Your task to perform on an android device: turn off wifi Image 0: 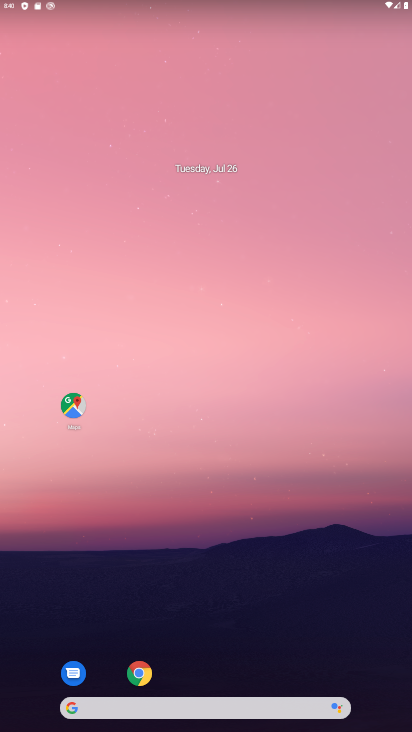
Step 0: drag from (275, 671) to (288, 53)
Your task to perform on an android device: turn off wifi Image 1: 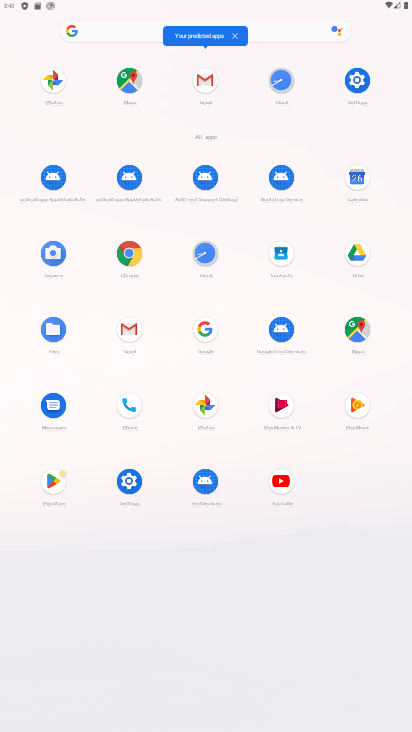
Step 1: click (359, 79)
Your task to perform on an android device: turn off wifi Image 2: 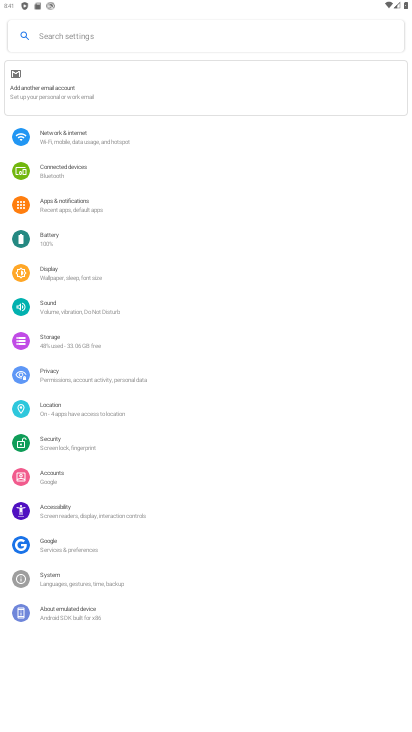
Step 2: click (156, 134)
Your task to perform on an android device: turn off wifi Image 3: 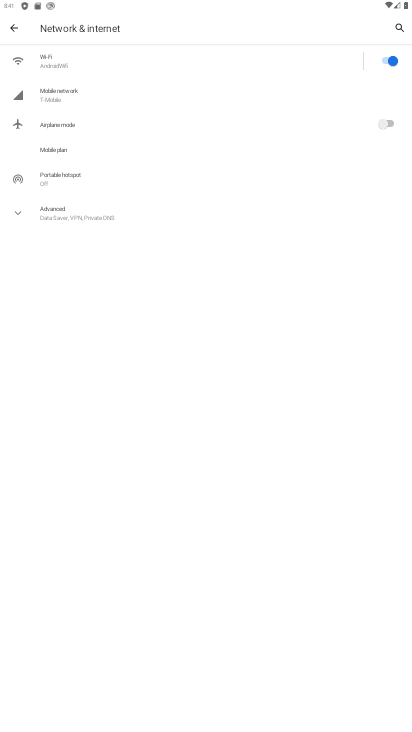
Step 3: click (383, 56)
Your task to perform on an android device: turn off wifi Image 4: 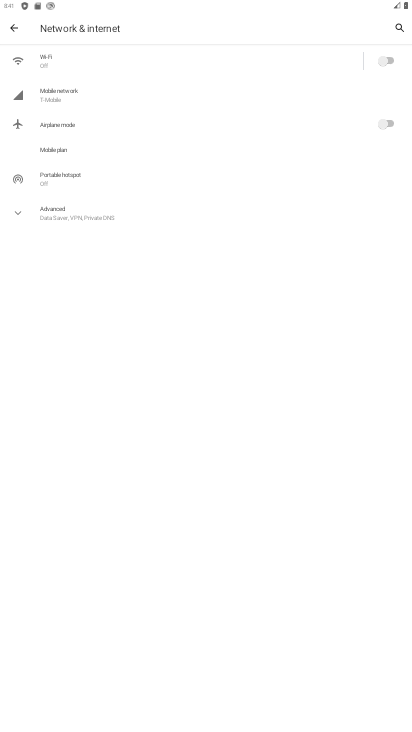
Step 4: task complete